Your task to perform on an android device: Turn off the flashlight Image 0: 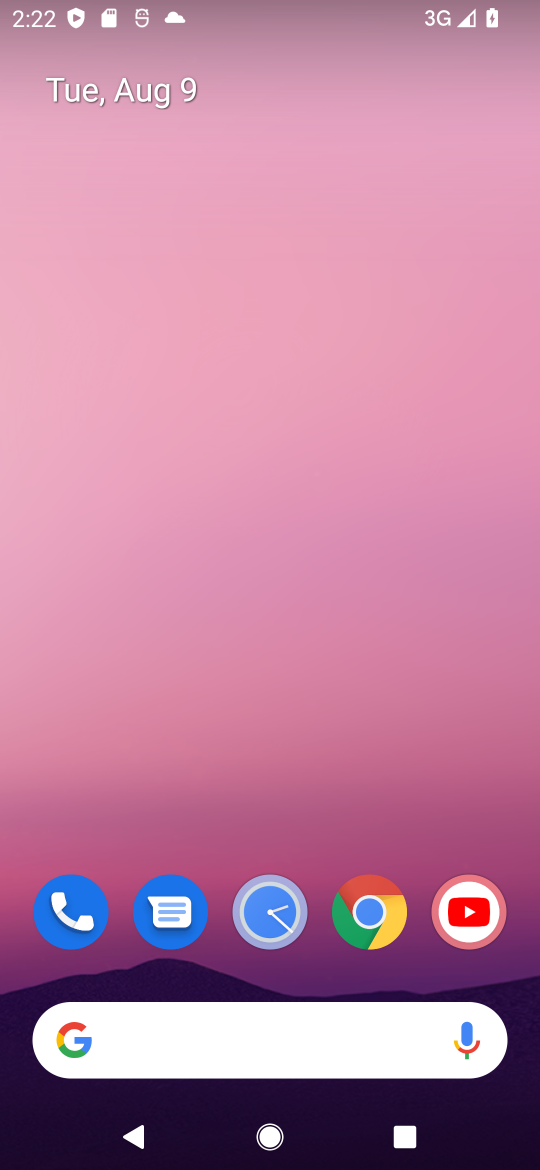
Step 0: drag from (284, 788) to (133, 155)
Your task to perform on an android device: Turn off the flashlight Image 1: 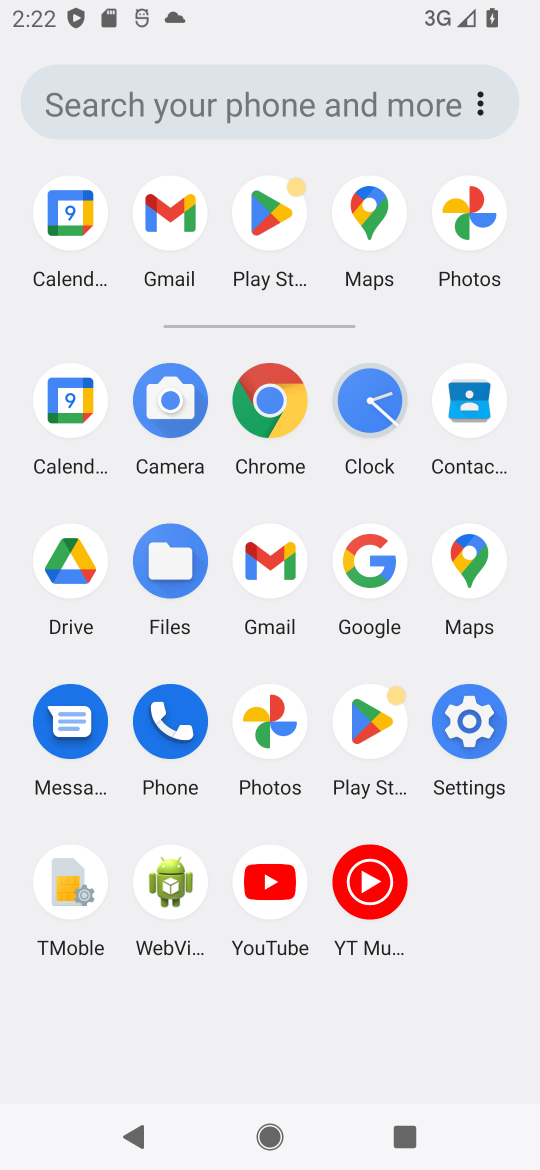
Step 1: click (466, 726)
Your task to perform on an android device: Turn off the flashlight Image 2: 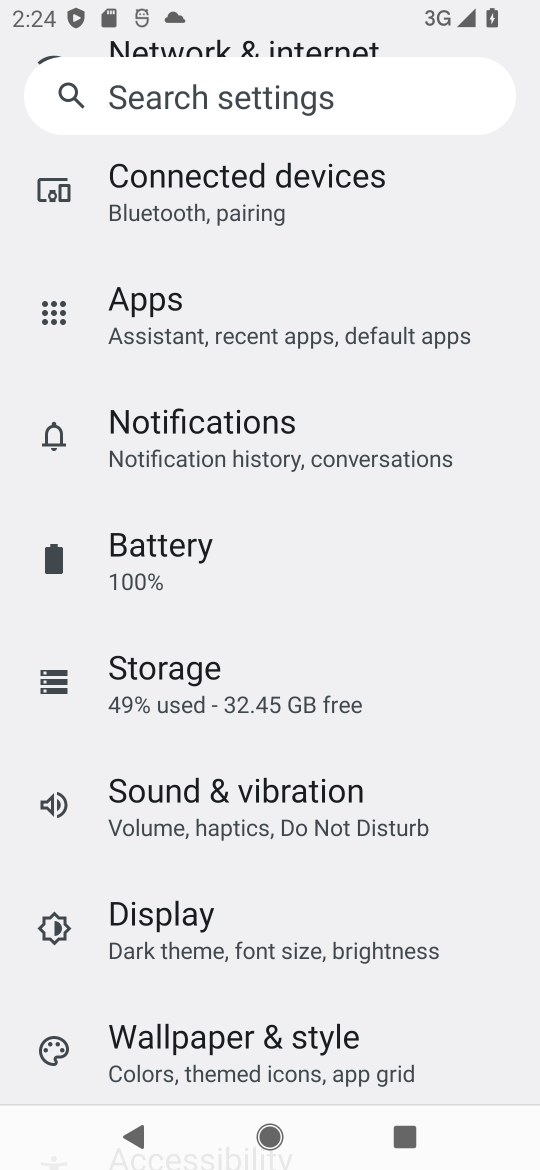
Step 2: task complete